Your task to perform on an android device: check google app version Image 0: 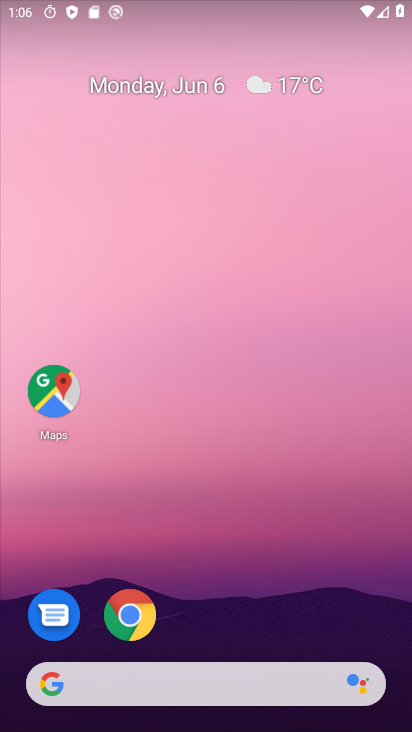
Step 0: drag from (182, 629) to (233, 43)
Your task to perform on an android device: check google app version Image 1: 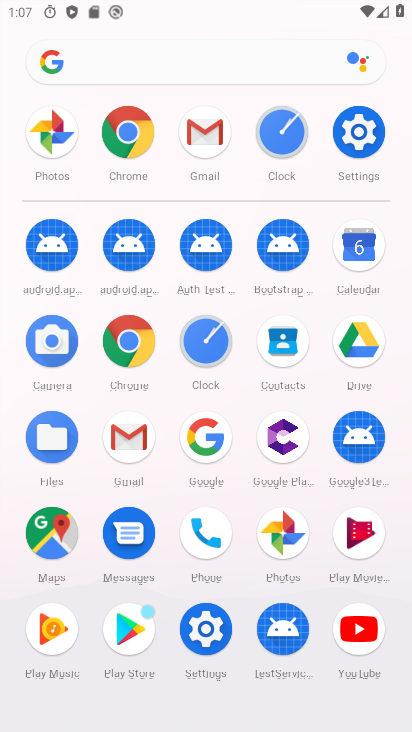
Step 1: click (202, 443)
Your task to perform on an android device: check google app version Image 2: 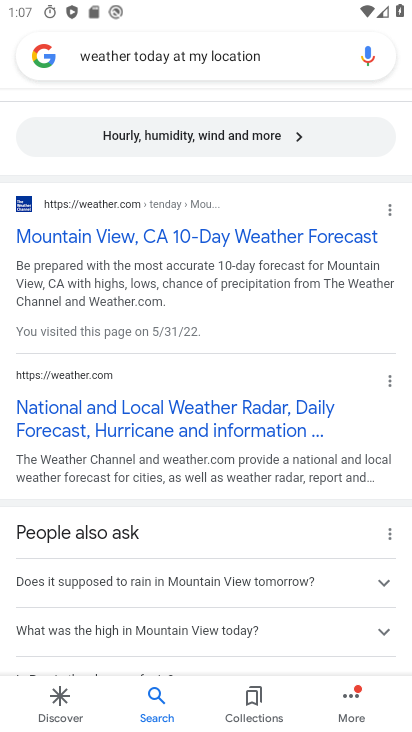
Step 2: click (354, 695)
Your task to perform on an android device: check google app version Image 3: 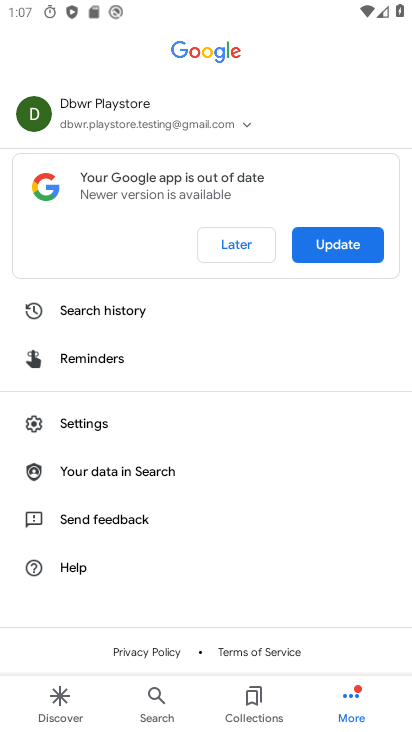
Step 3: click (167, 415)
Your task to perform on an android device: check google app version Image 4: 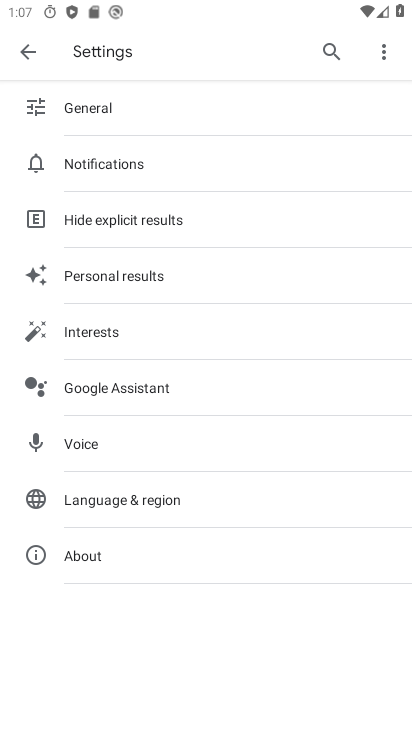
Step 4: click (138, 544)
Your task to perform on an android device: check google app version Image 5: 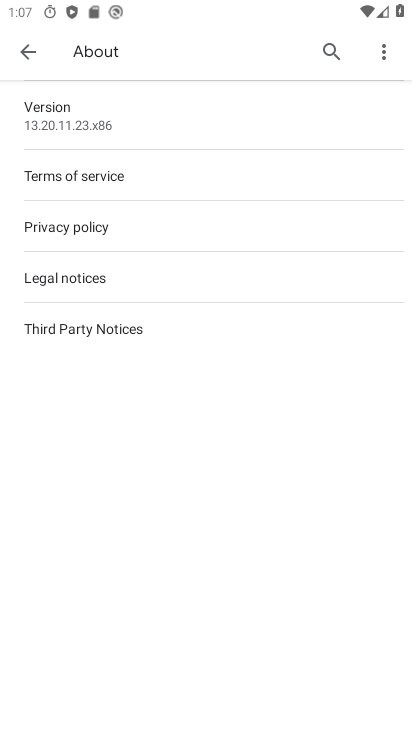
Step 5: click (171, 119)
Your task to perform on an android device: check google app version Image 6: 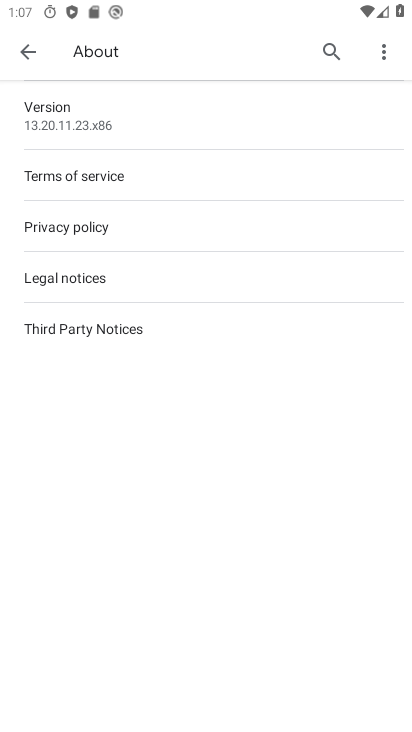
Step 6: click (166, 115)
Your task to perform on an android device: check google app version Image 7: 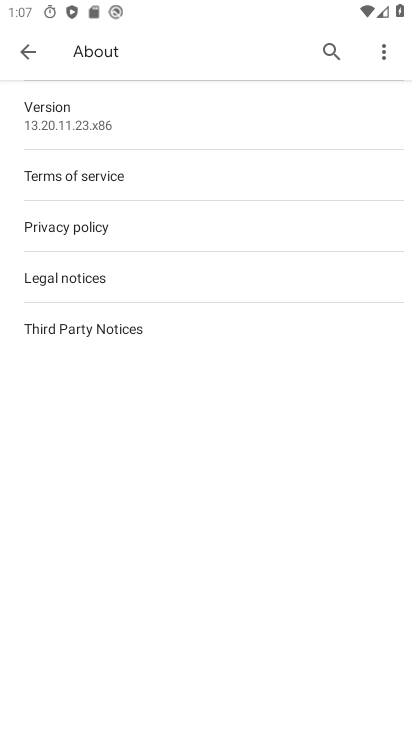
Step 7: task complete